Your task to perform on an android device: turn off smart reply in the gmail app Image 0: 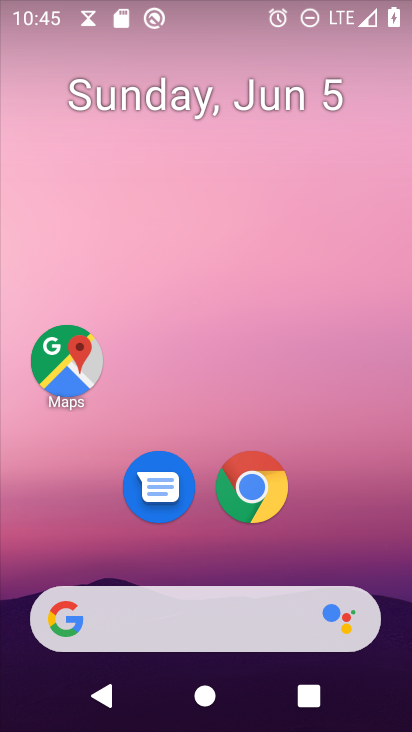
Step 0: drag from (290, 560) to (274, 193)
Your task to perform on an android device: turn off smart reply in the gmail app Image 1: 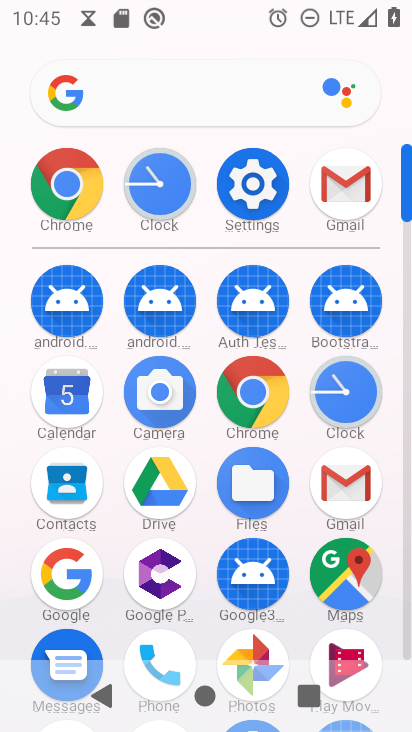
Step 1: click (341, 173)
Your task to perform on an android device: turn off smart reply in the gmail app Image 2: 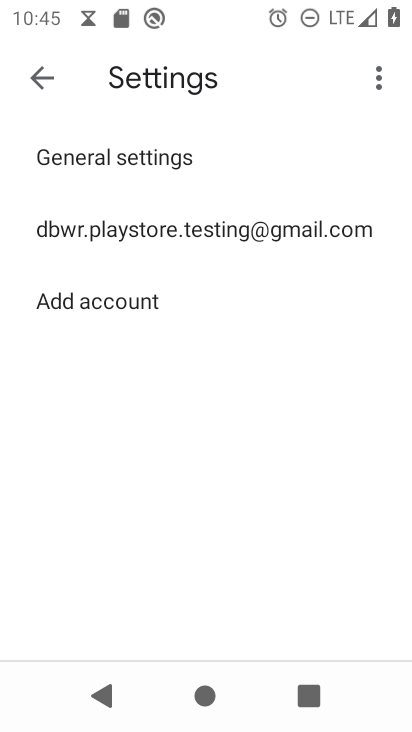
Step 2: click (123, 223)
Your task to perform on an android device: turn off smart reply in the gmail app Image 3: 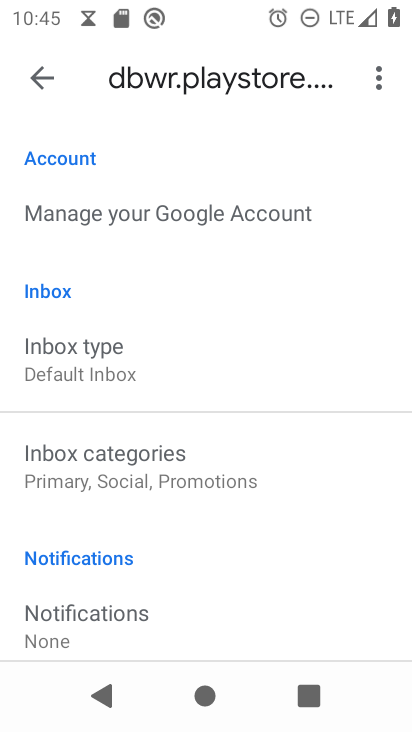
Step 3: drag from (262, 554) to (375, 240)
Your task to perform on an android device: turn off smart reply in the gmail app Image 4: 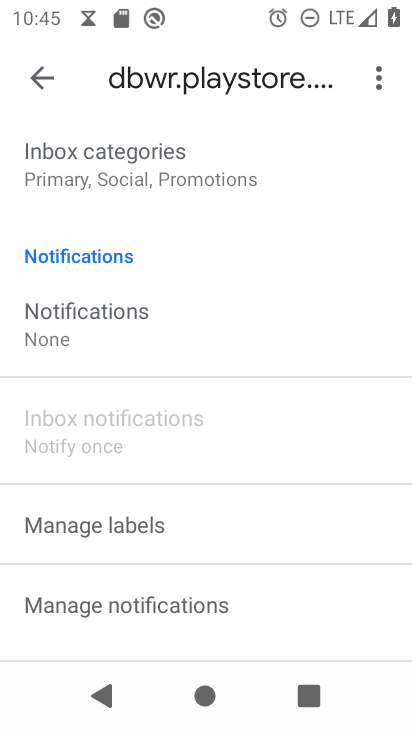
Step 4: drag from (228, 575) to (295, 242)
Your task to perform on an android device: turn off smart reply in the gmail app Image 5: 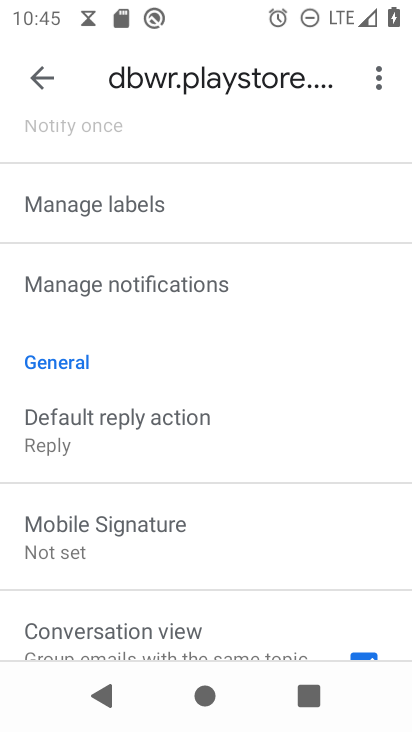
Step 5: drag from (145, 569) to (255, 194)
Your task to perform on an android device: turn off smart reply in the gmail app Image 6: 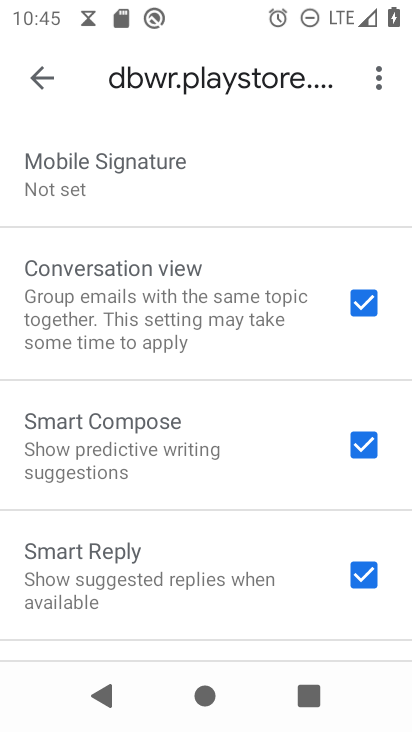
Step 6: click (351, 436)
Your task to perform on an android device: turn off smart reply in the gmail app Image 7: 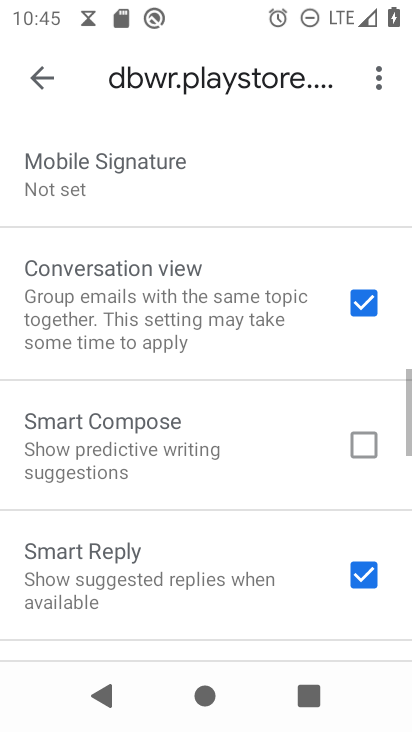
Step 7: click (371, 443)
Your task to perform on an android device: turn off smart reply in the gmail app Image 8: 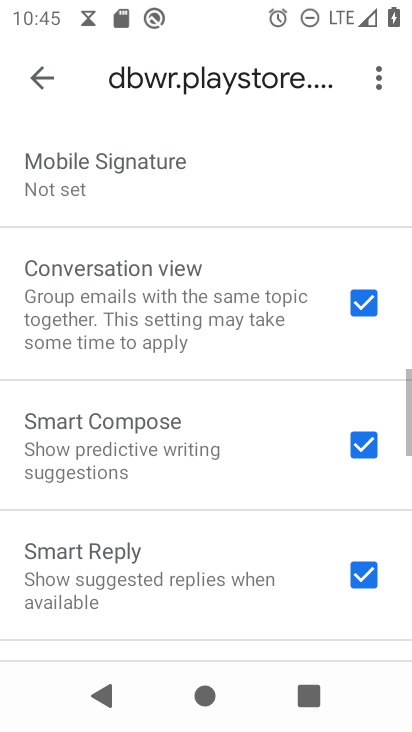
Step 8: click (360, 574)
Your task to perform on an android device: turn off smart reply in the gmail app Image 9: 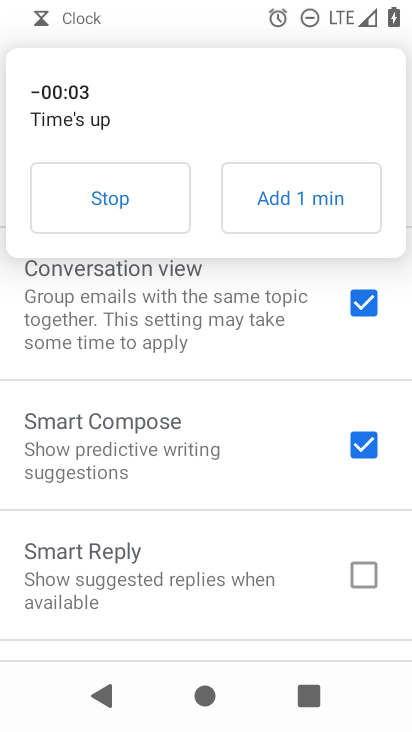
Step 9: task complete